Your task to perform on an android device: What's on my calendar tomorrow? Image 0: 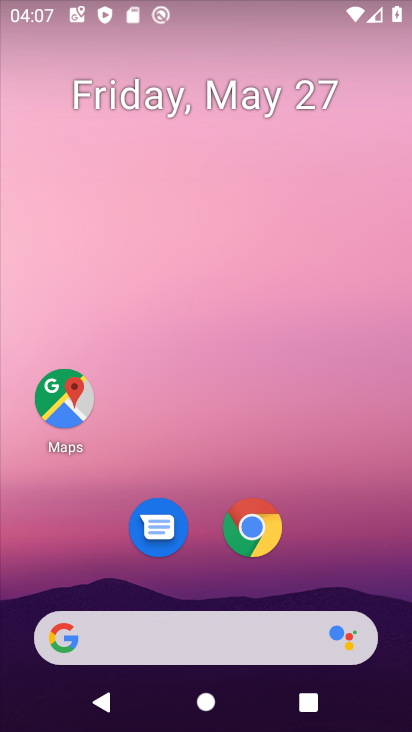
Step 0: drag from (300, 584) to (317, 205)
Your task to perform on an android device: What's on my calendar tomorrow? Image 1: 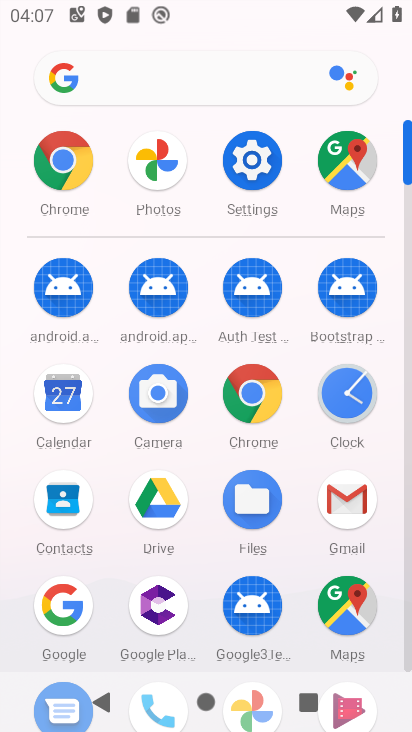
Step 1: click (63, 398)
Your task to perform on an android device: What's on my calendar tomorrow? Image 2: 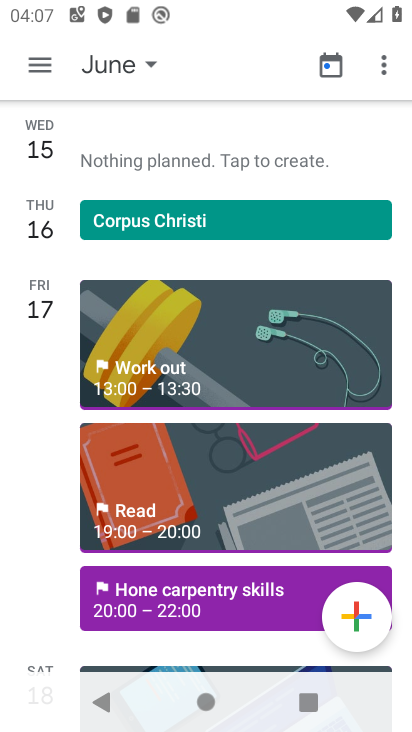
Step 2: click (126, 62)
Your task to perform on an android device: What's on my calendar tomorrow? Image 3: 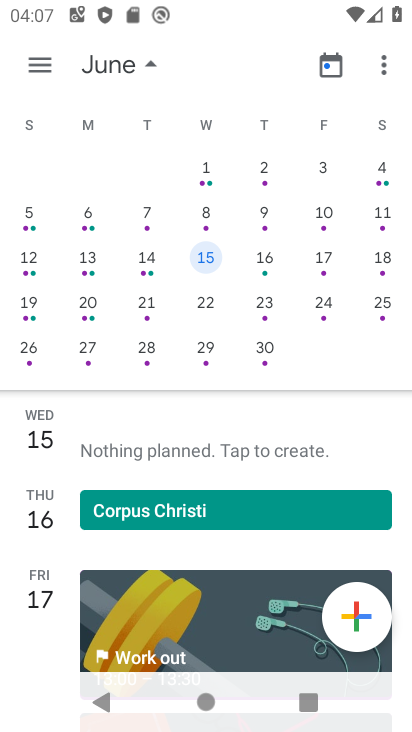
Step 3: drag from (28, 244) to (379, 239)
Your task to perform on an android device: What's on my calendar tomorrow? Image 4: 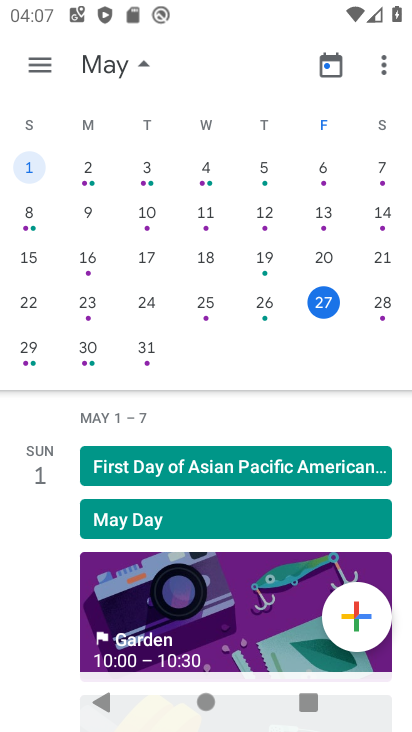
Step 4: click (380, 303)
Your task to perform on an android device: What's on my calendar tomorrow? Image 5: 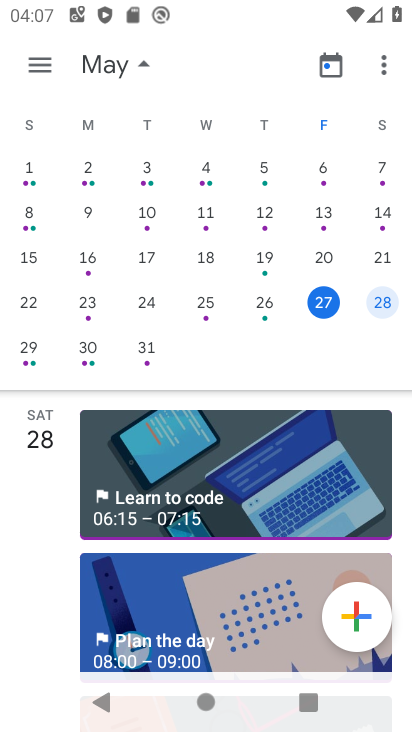
Step 5: task complete